Your task to perform on an android device: open app "DoorDash - Food Delivery" Image 0: 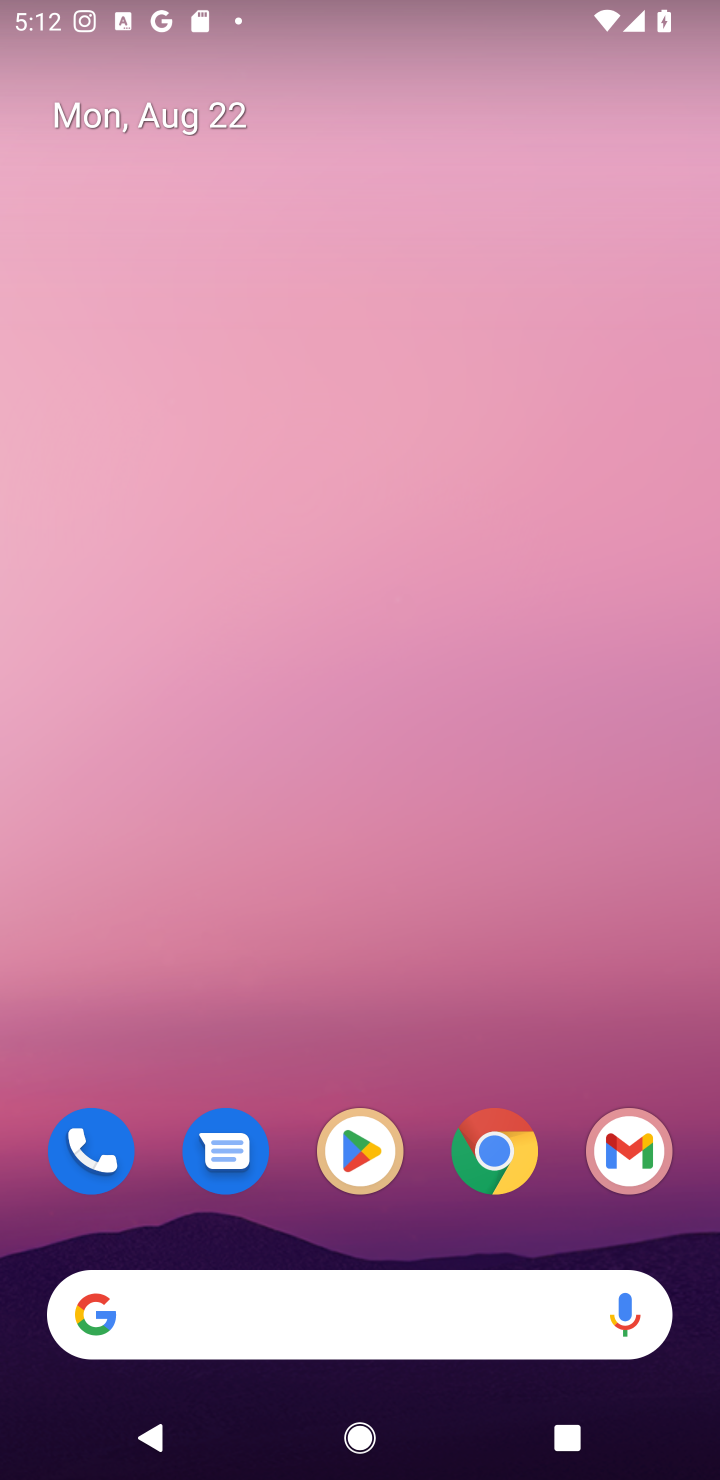
Step 0: click (362, 1162)
Your task to perform on an android device: open app "DoorDash - Food Delivery" Image 1: 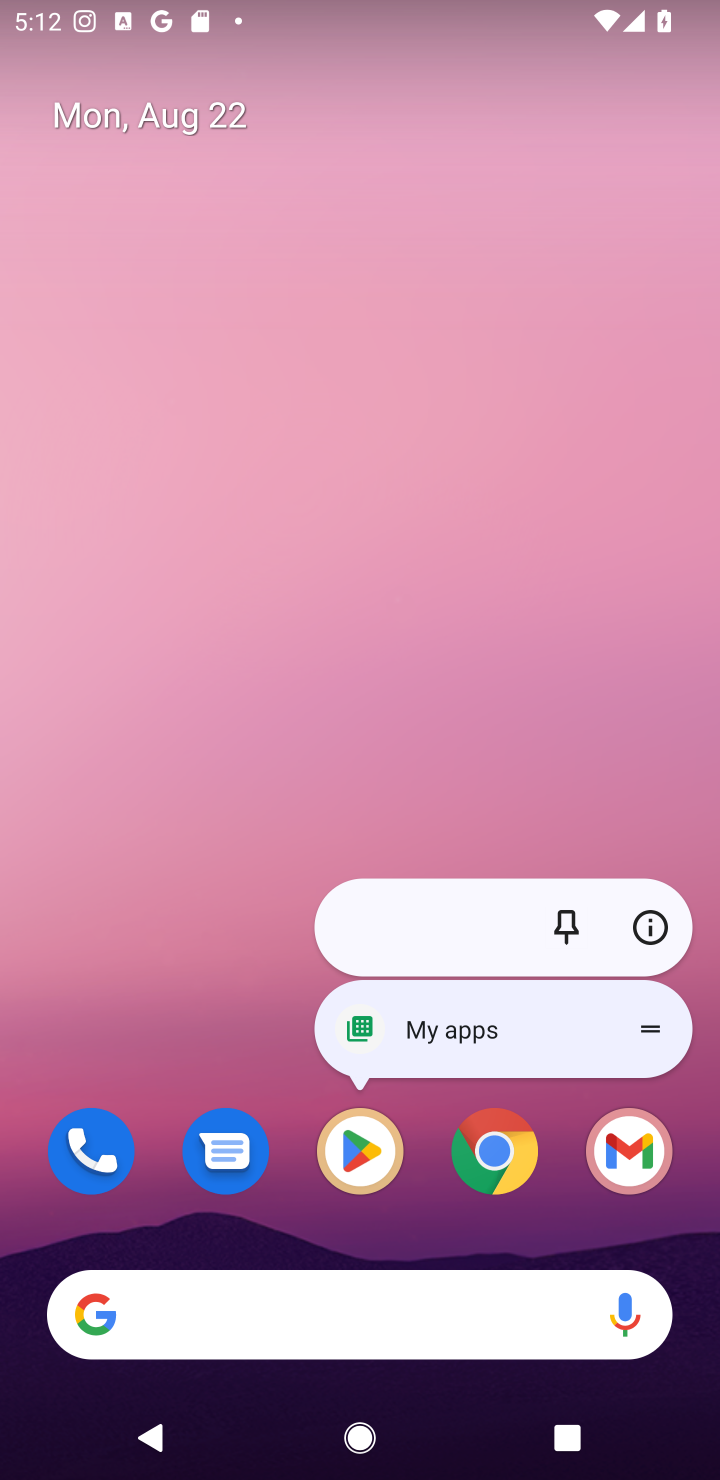
Step 1: click (358, 1169)
Your task to perform on an android device: open app "DoorDash - Food Delivery" Image 2: 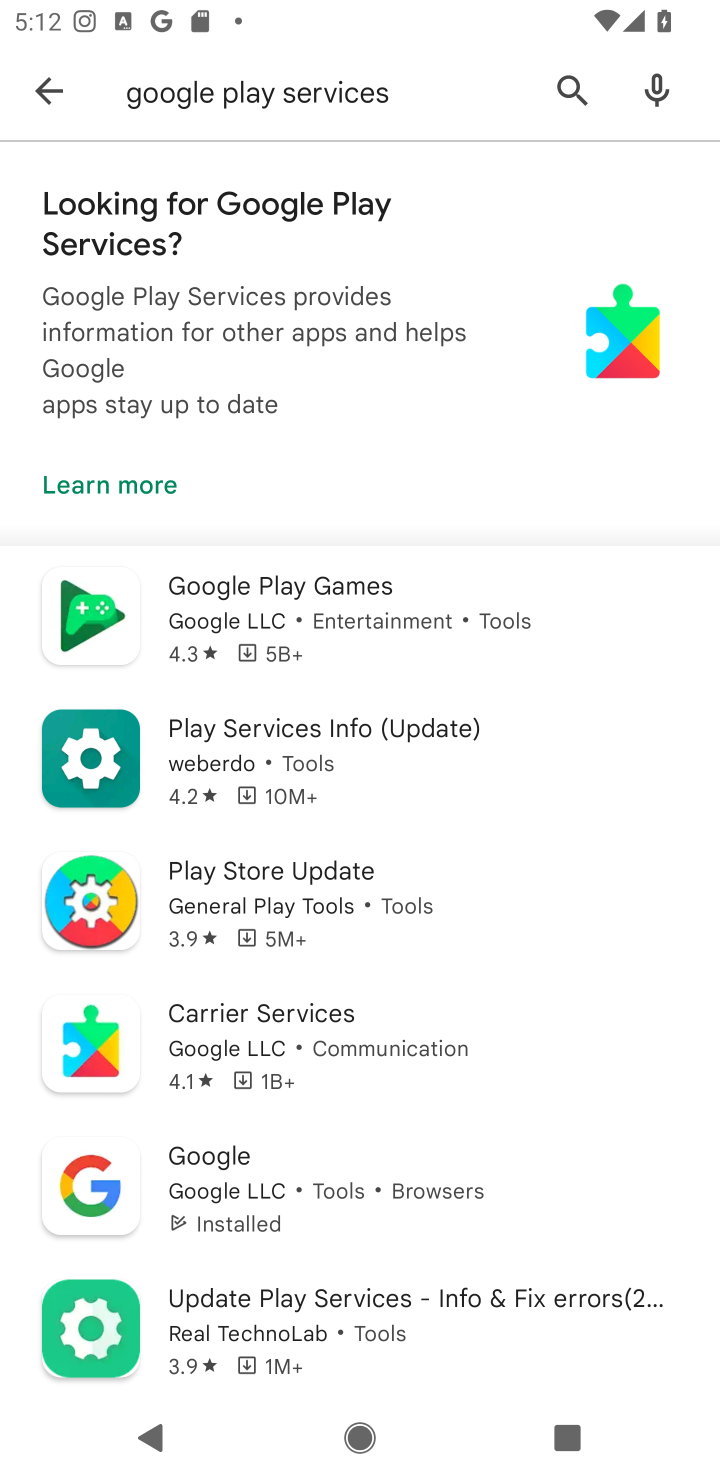
Step 2: click (559, 86)
Your task to perform on an android device: open app "DoorDash - Food Delivery" Image 3: 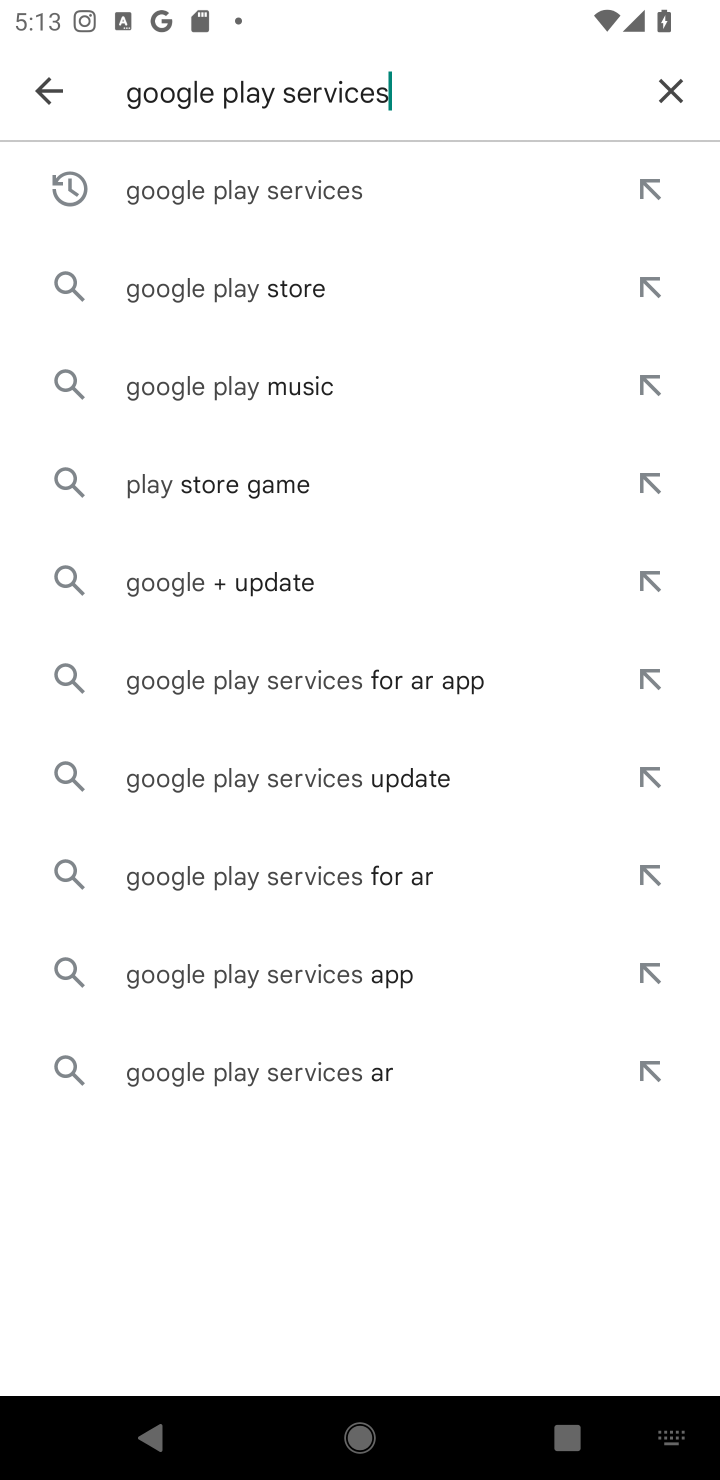
Step 3: click (657, 88)
Your task to perform on an android device: open app "DoorDash - Food Delivery" Image 4: 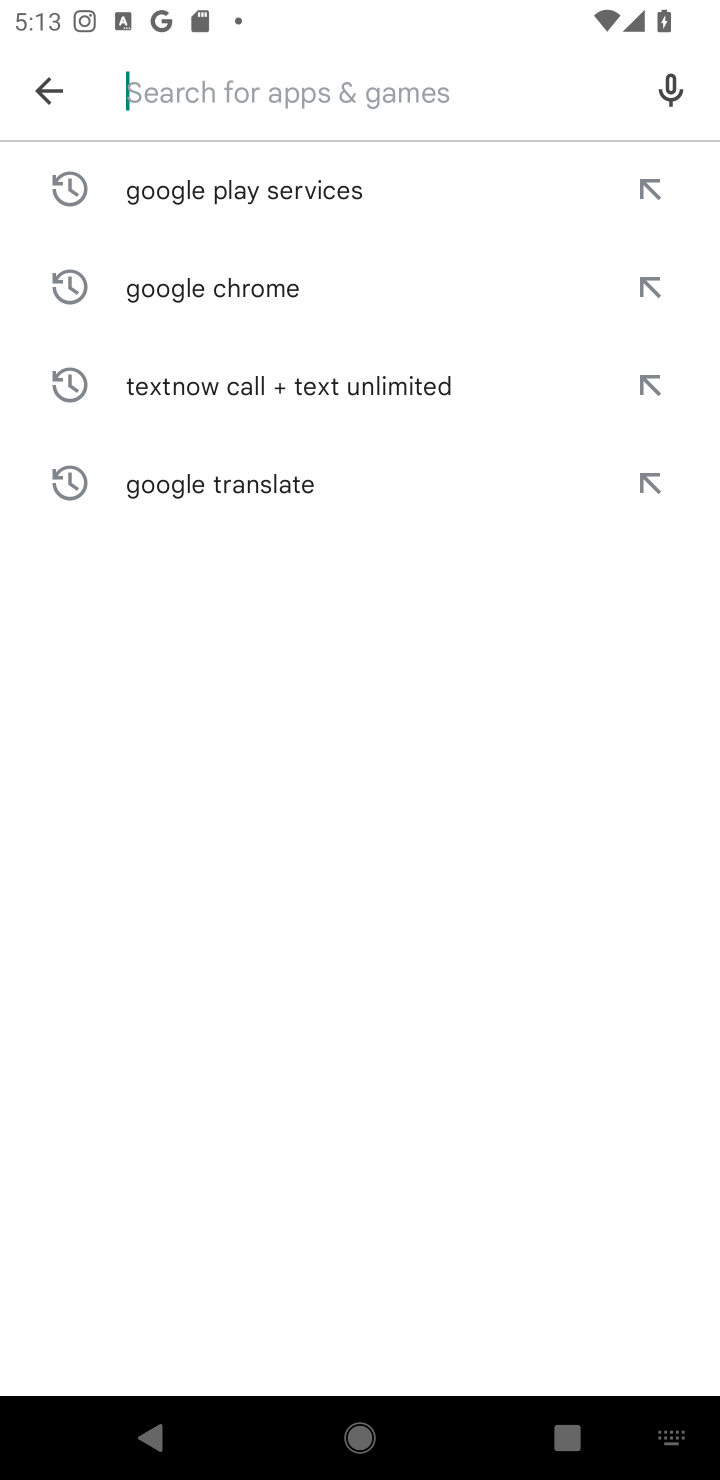
Step 4: type "DoorDash - Food Delivery"
Your task to perform on an android device: open app "DoorDash - Food Delivery" Image 5: 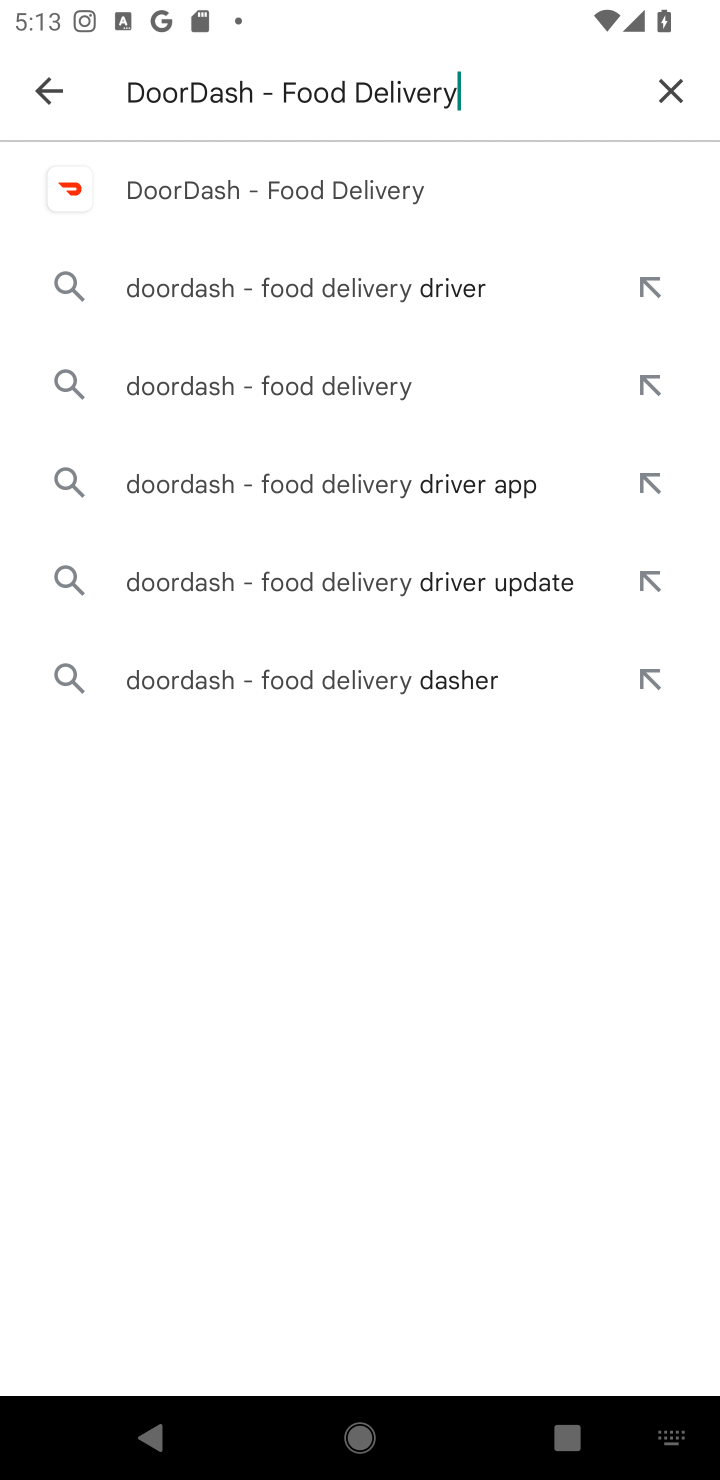
Step 5: click (240, 202)
Your task to perform on an android device: open app "DoorDash - Food Delivery" Image 6: 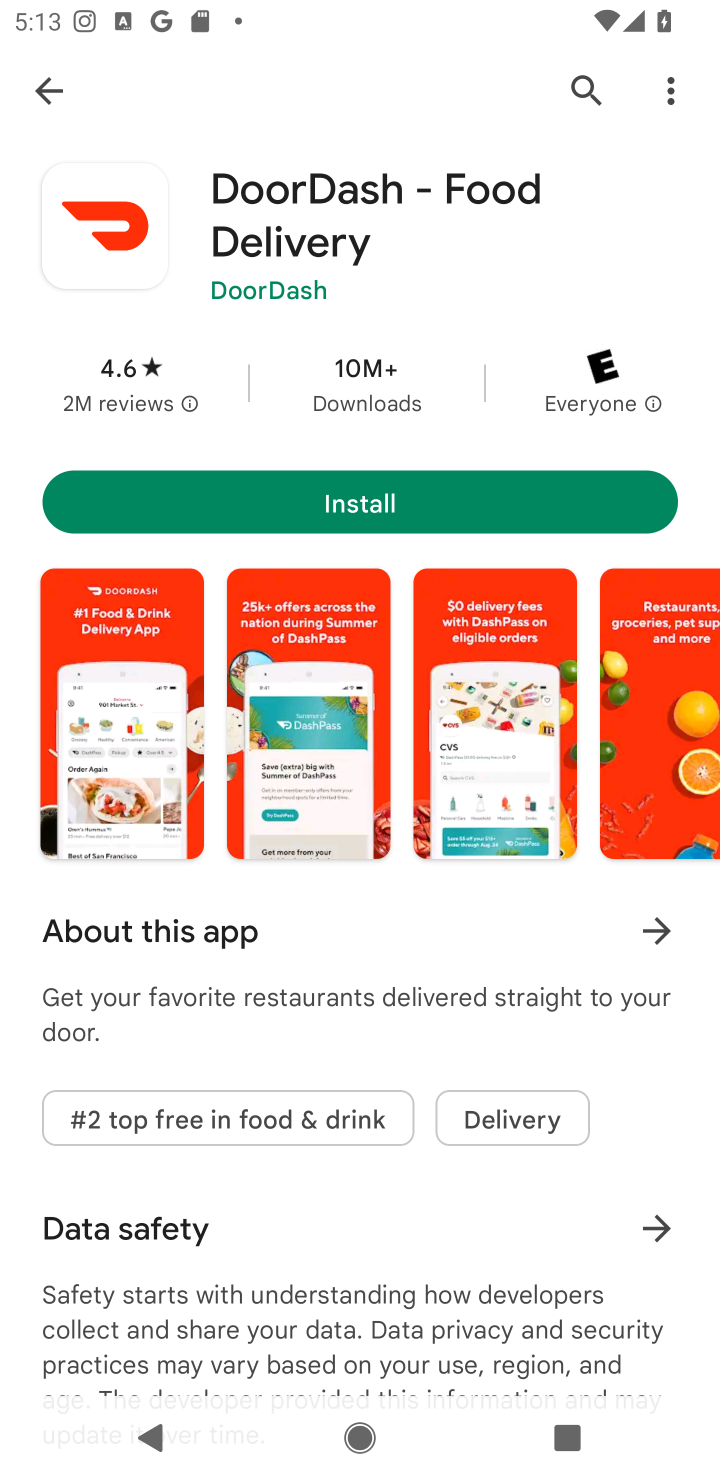
Step 6: task complete